Your task to perform on an android device: When is my next appointment? Image 0: 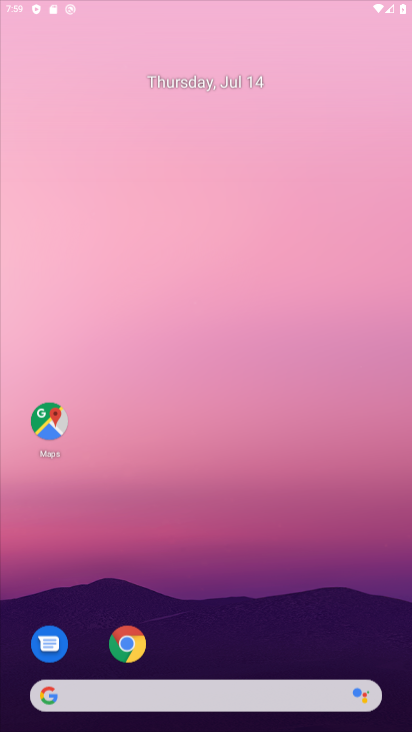
Step 0: click (282, 616)
Your task to perform on an android device: When is my next appointment? Image 1: 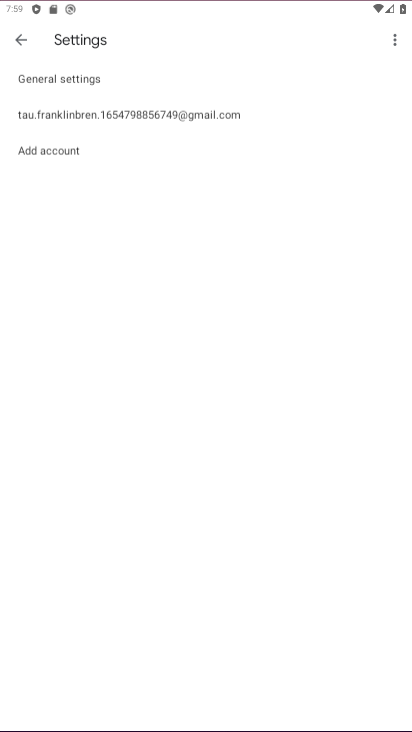
Step 1: drag from (185, 635) to (236, 151)
Your task to perform on an android device: When is my next appointment? Image 2: 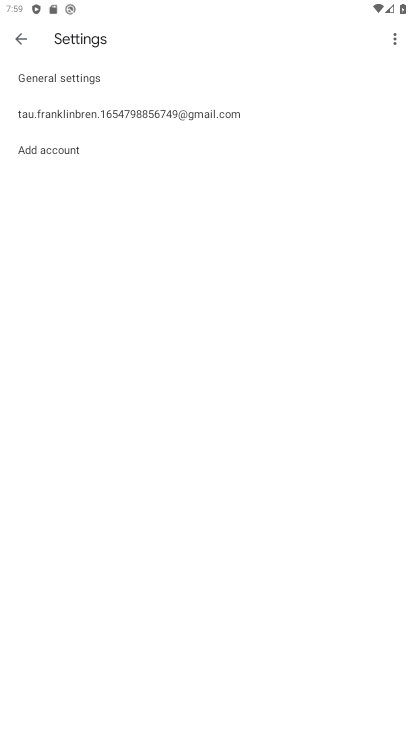
Step 2: press home button
Your task to perform on an android device: When is my next appointment? Image 3: 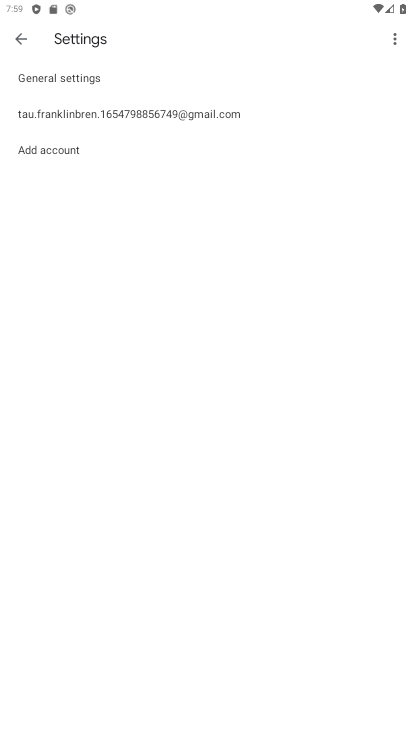
Step 3: press home button
Your task to perform on an android device: When is my next appointment? Image 4: 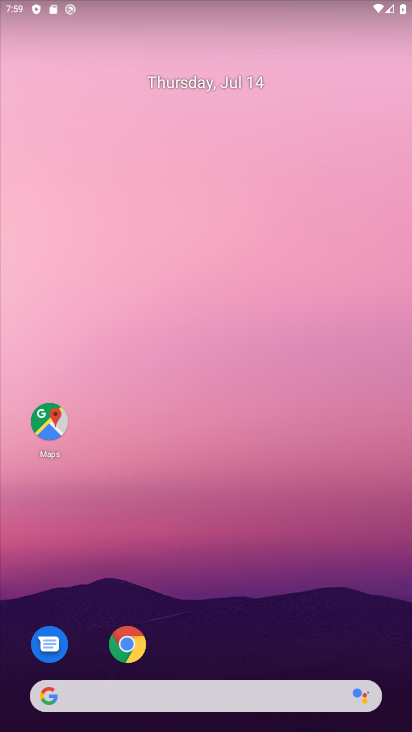
Step 4: drag from (225, 642) to (290, 3)
Your task to perform on an android device: When is my next appointment? Image 5: 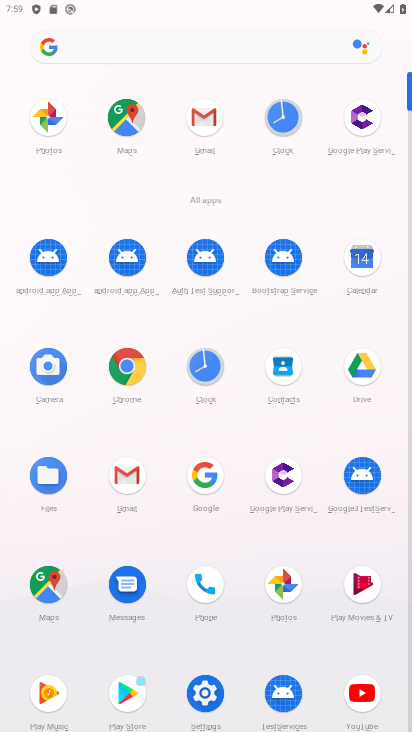
Step 5: click (361, 257)
Your task to perform on an android device: When is my next appointment? Image 6: 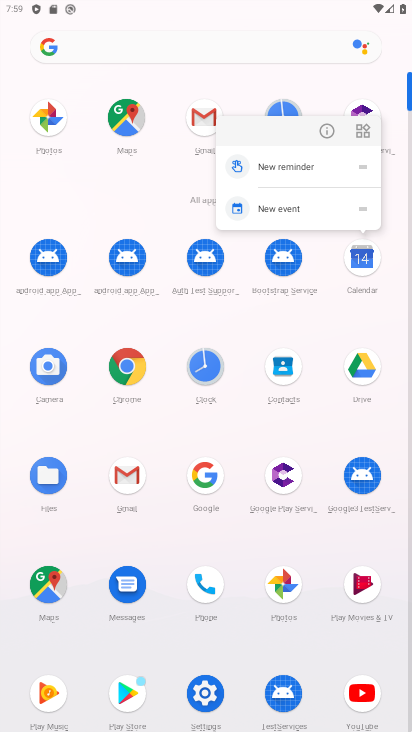
Step 6: click (318, 129)
Your task to perform on an android device: When is my next appointment? Image 7: 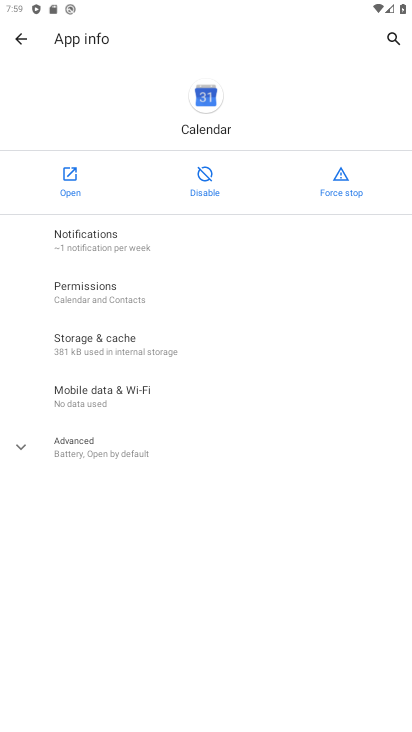
Step 7: click (58, 191)
Your task to perform on an android device: When is my next appointment? Image 8: 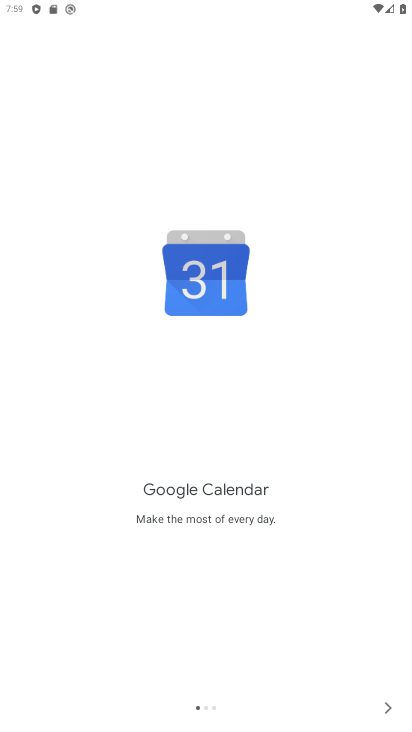
Step 8: drag from (232, 485) to (289, 141)
Your task to perform on an android device: When is my next appointment? Image 9: 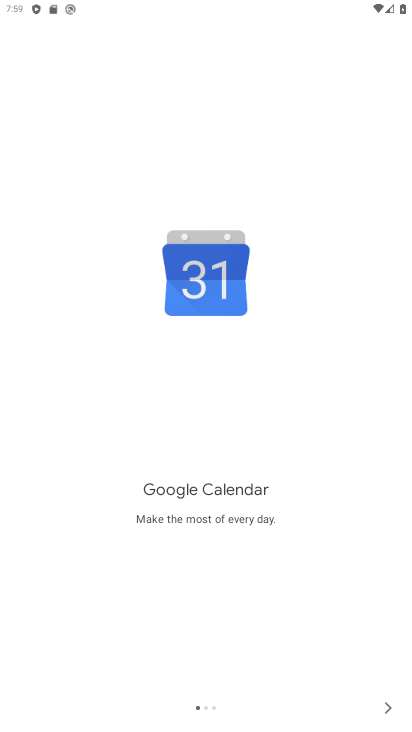
Step 9: click (252, 166)
Your task to perform on an android device: When is my next appointment? Image 10: 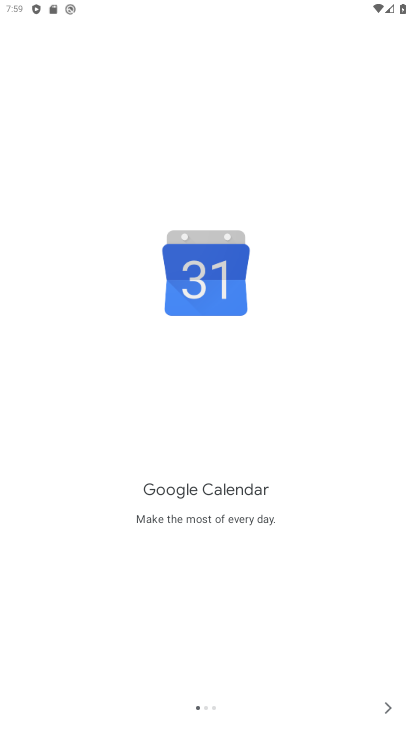
Step 10: click (374, 706)
Your task to perform on an android device: When is my next appointment? Image 11: 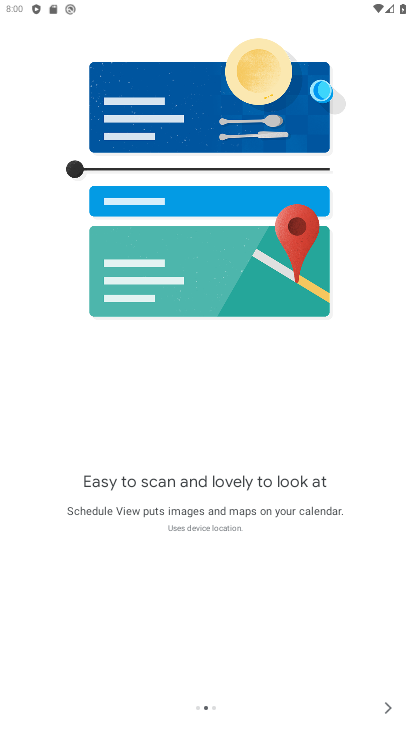
Step 11: click (376, 705)
Your task to perform on an android device: When is my next appointment? Image 12: 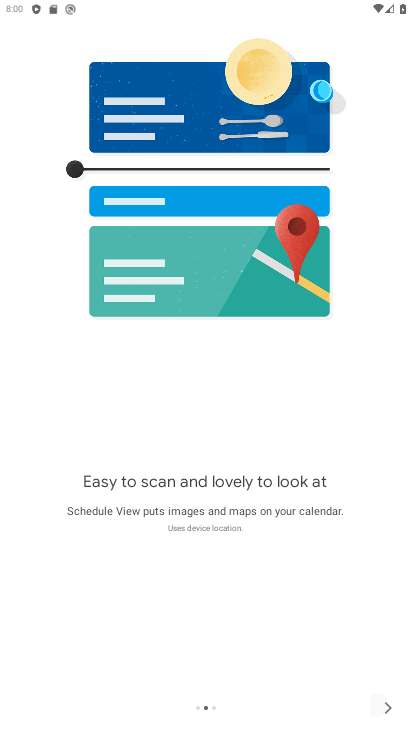
Step 12: click (377, 703)
Your task to perform on an android device: When is my next appointment? Image 13: 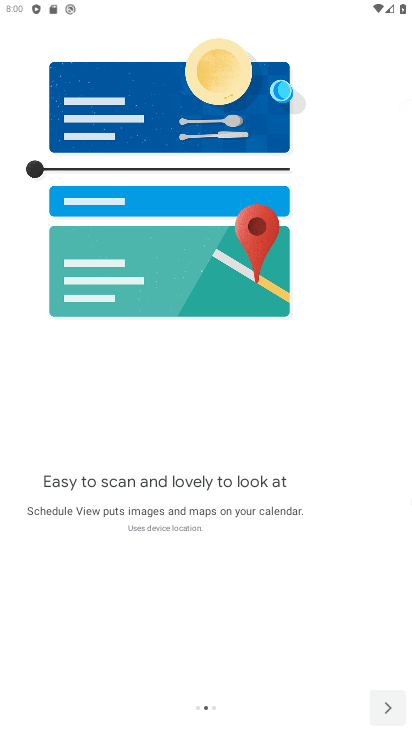
Step 13: click (371, 700)
Your task to perform on an android device: When is my next appointment? Image 14: 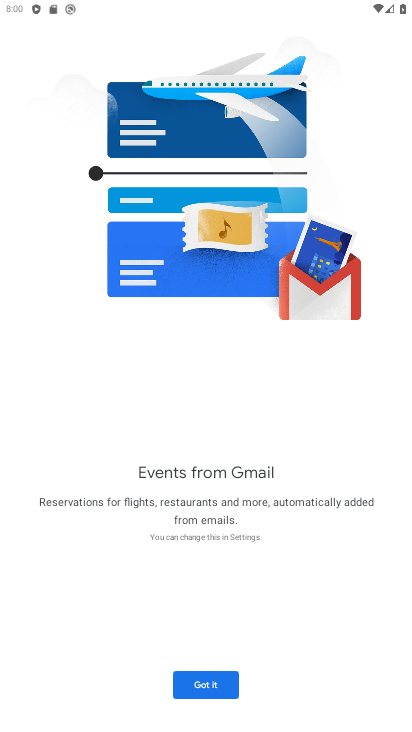
Step 14: click (225, 681)
Your task to perform on an android device: When is my next appointment? Image 15: 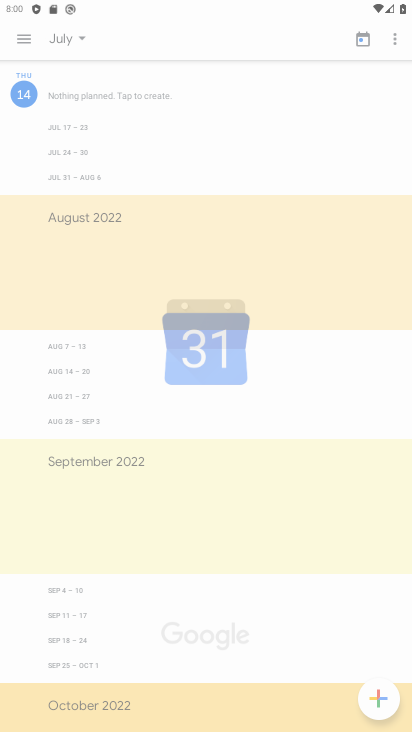
Step 15: drag from (276, 564) to (255, 227)
Your task to perform on an android device: When is my next appointment? Image 16: 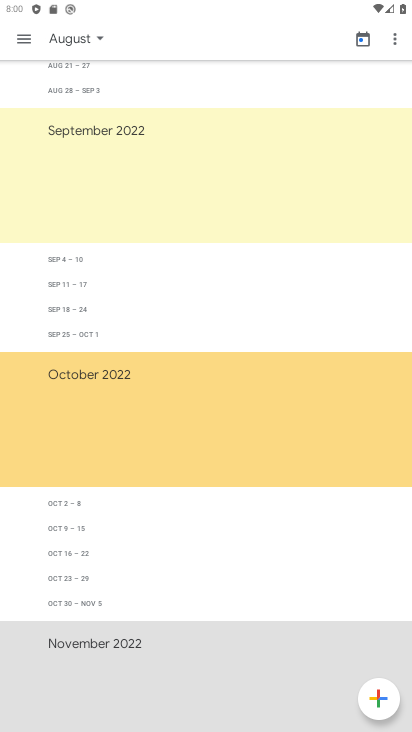
Step 16: click (71, 36)
Your task to perform on an android device: When is my next appointment? Image 17: 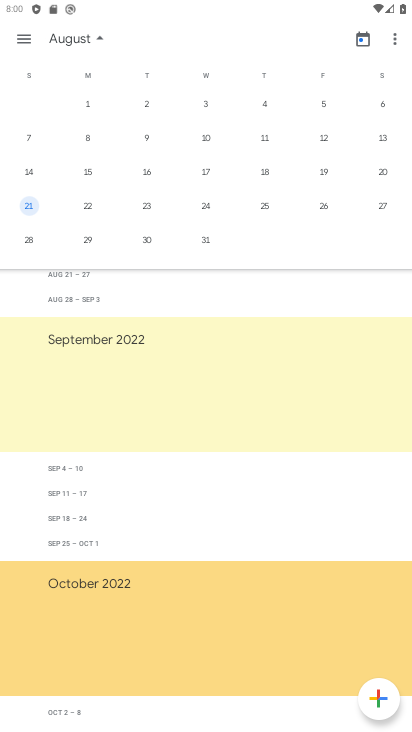
Step 17: drag from (97, 194) to (411, 222)
Your task to perform on an android device: When is my next appointment? Image 18: 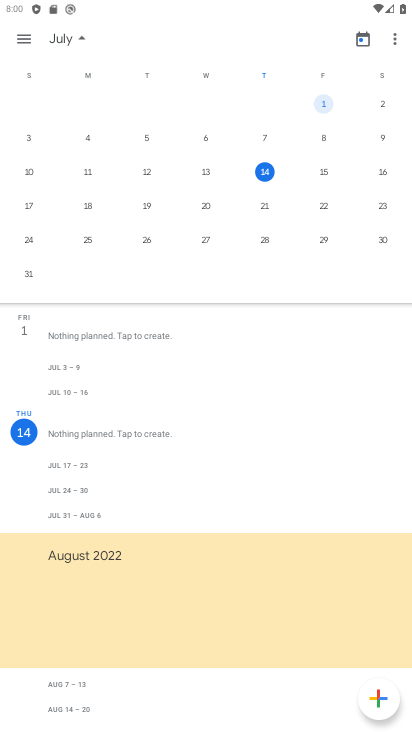
Step 18: click (267, 169)
Your task to perform on an android device: When is my next appointment? Image 19: 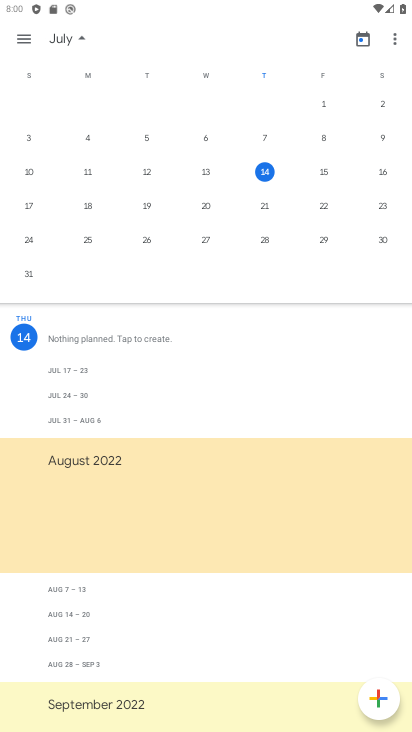
Step 19: click (321, 175)
Your task to perform on an android device: When is my next appointment? Image 20: 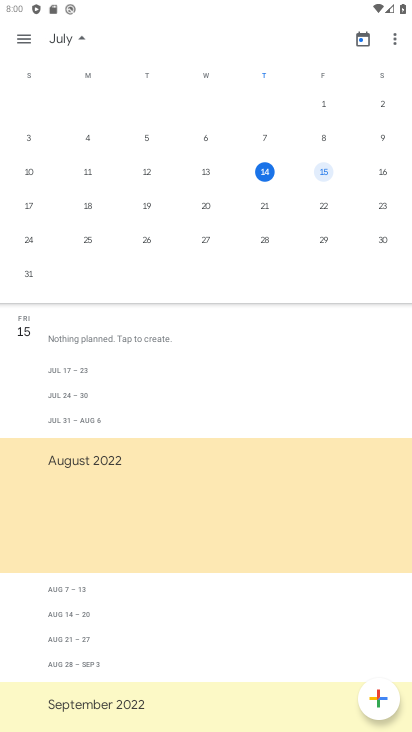
Step 20: drag from (216, 619) to (255, 331)
Your task to perform on an android device: When is my next appointment? Image 21: 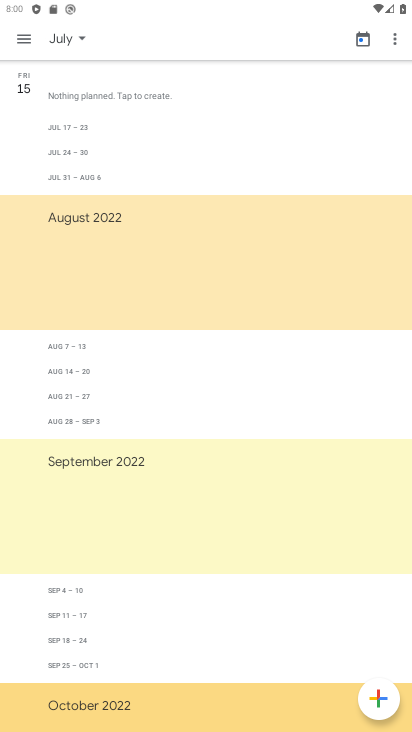
Step 21: drag from (266, 326) to (281, 677)
Your task to perform on an android device: When is my next appointment? Image 22: 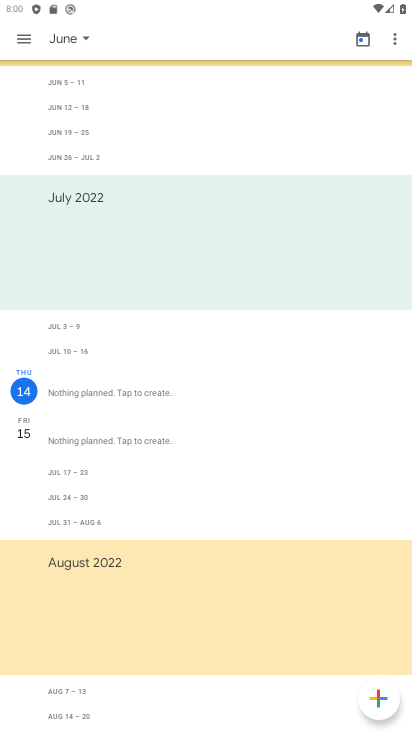
Step 22: click (65, 31)
Your task to perform on an android device: When is my next appointment? Image 23: 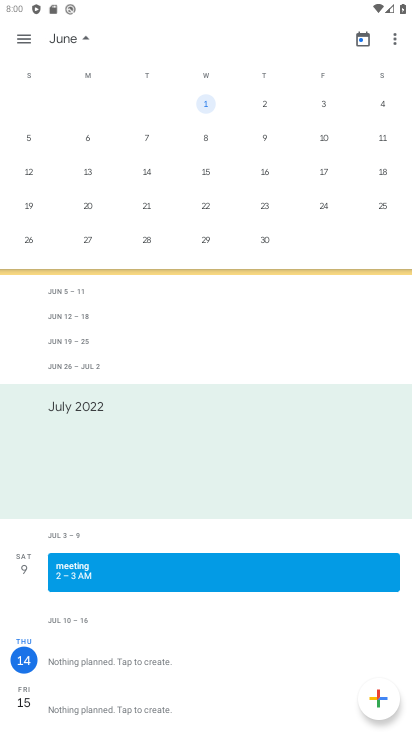
Step 23: task complete